Your task to perform on an android device: check android version Image 0: 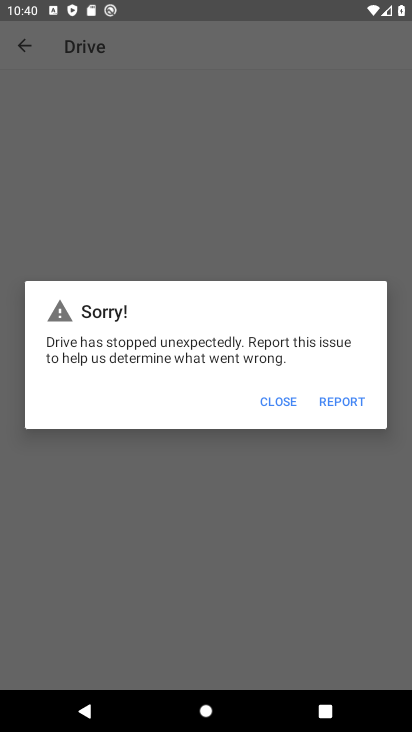
Step 0: press home button
Your task to perform on an android device: check android version Image 1: 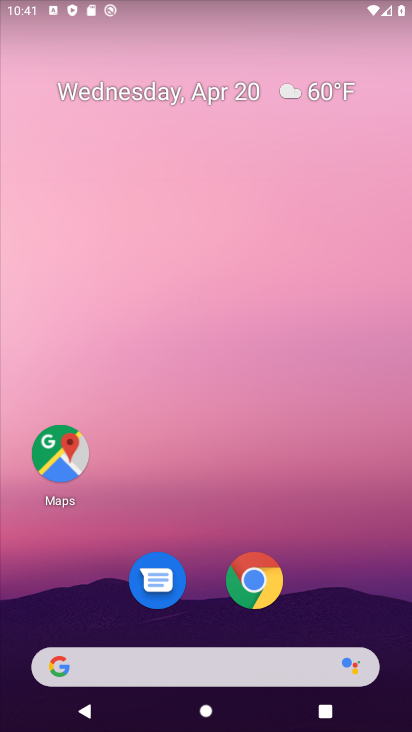
Step 1: drag from (195, 661) to (260, 46)
Your task to perform on an android device: check android version Image 2: 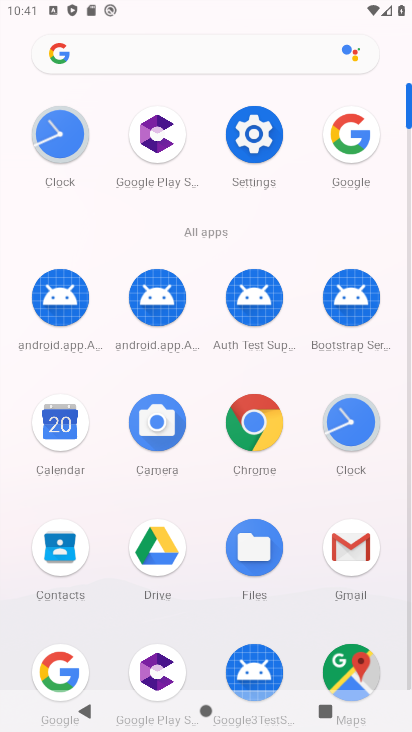
Step 2: click (267, 125)
Your task to perform on an android device: check android version Image 3: 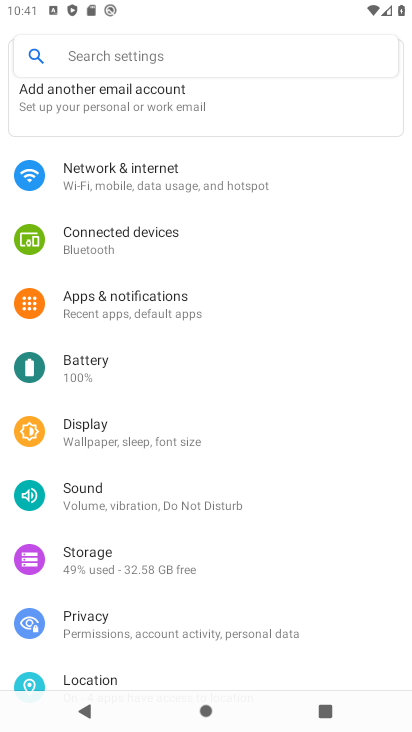
Step 3: drag from (142, 626) to (137, 205)
Your task to perform on an android device: check android version Image 4: 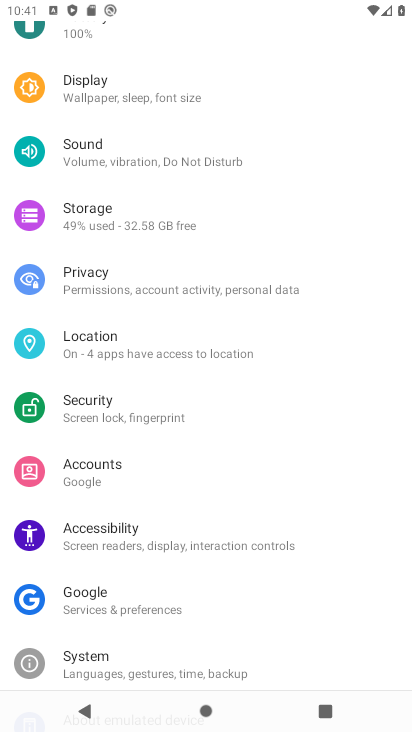
Step 4: drag from (86, 577) to (110, 176)
Your task to perform on an android device: check android version Image 5: 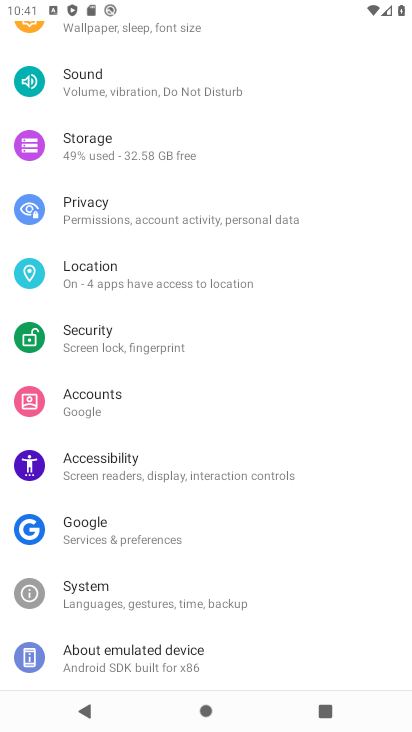
Step 5: click (132, 659)
Your task to perform on an android device: check android version Image 6: 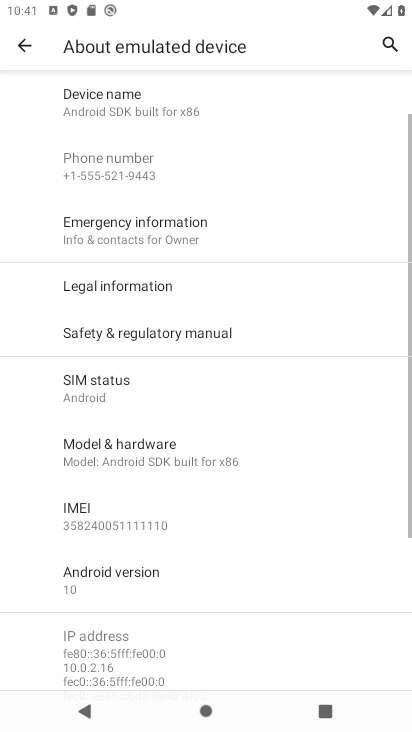
Step 6: click (138, 572)
Your task to perform on an android device: check android version Image 7: 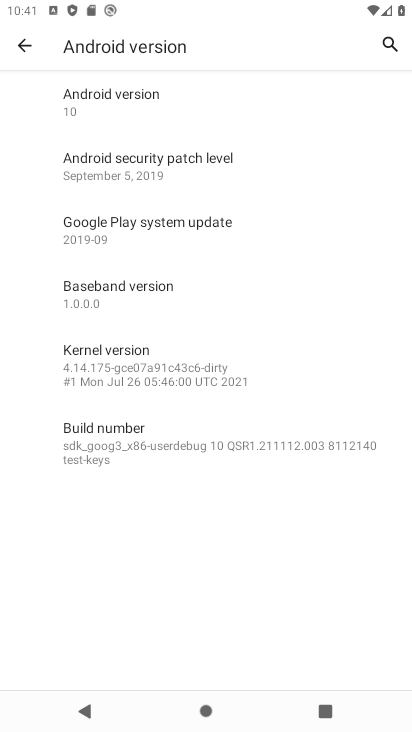
Step 7: task complete